Your task to perform on an android device: turn notification dots on Image 0: 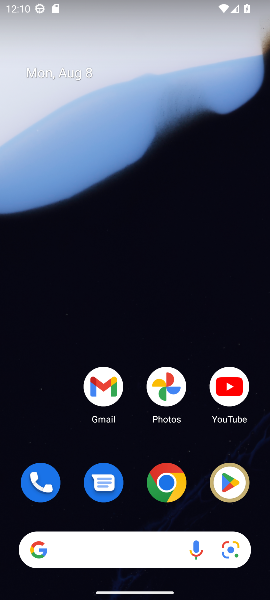
Step 0: drag from (154, 552) to (183, 56)
Your task to perform on an android device: turn notification dots on Image 1: 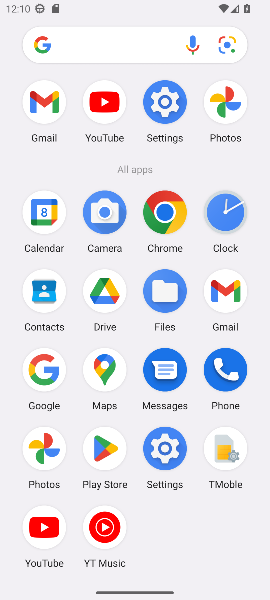
Step 1: click (165, 121)
Your task to perform on an android device: turn notification dots on Image 2: 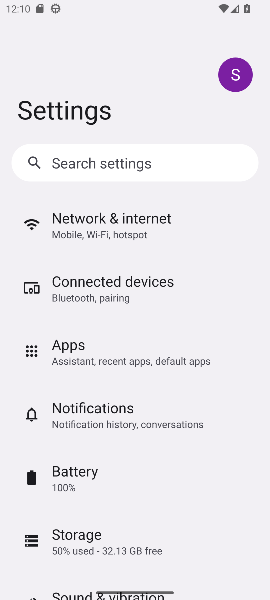
Step 2: click (90, 410)
Your task to perform on an android device: turn notification dots on Image 3: 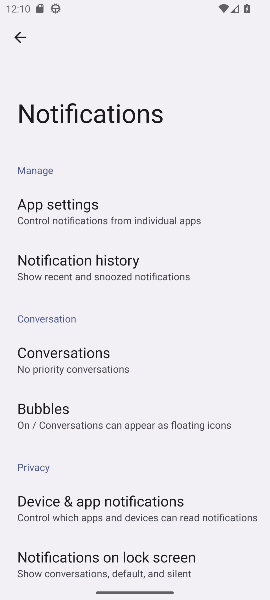
Step 3: drag from (238, 557) to (222, 104)
Your task to perform on an android device: turn notification dots on Image 4: 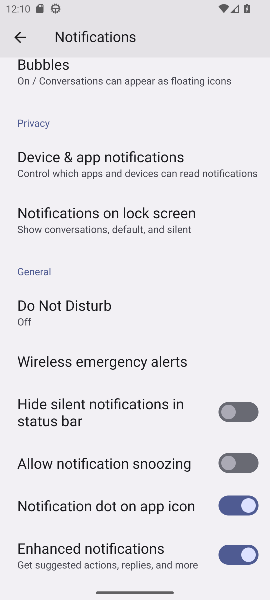
Step 4: click (232, 507)
Your task to perform on an android device: turn notification dots on Image 5: 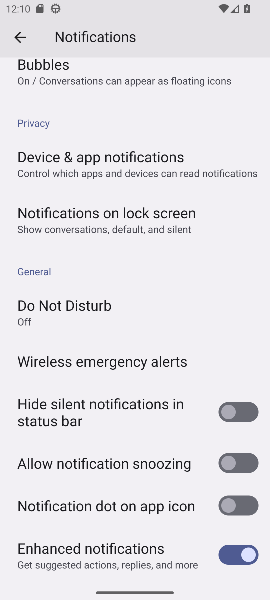
Step 5: click (241, 511)
Your task to perform on an android device: turn notification dots on Image 6: 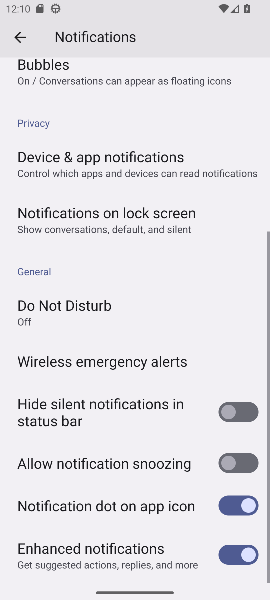
Step 6: task complete